Your task to perform on an android device: Open Wikipedia Image 0: 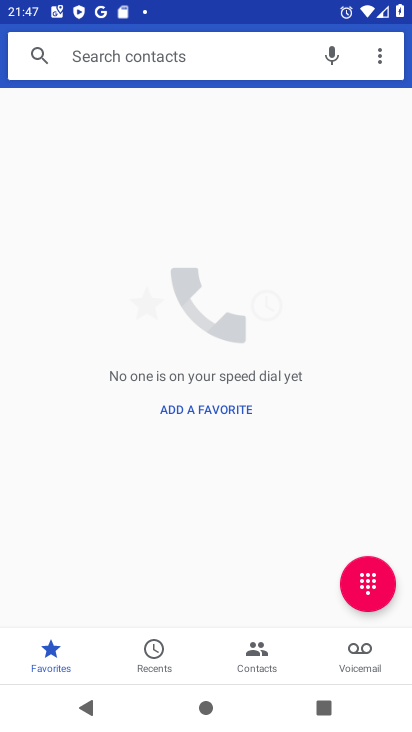
Step 0: press home button
Your task to perform on an android device: Open Wikipedia Image 1: 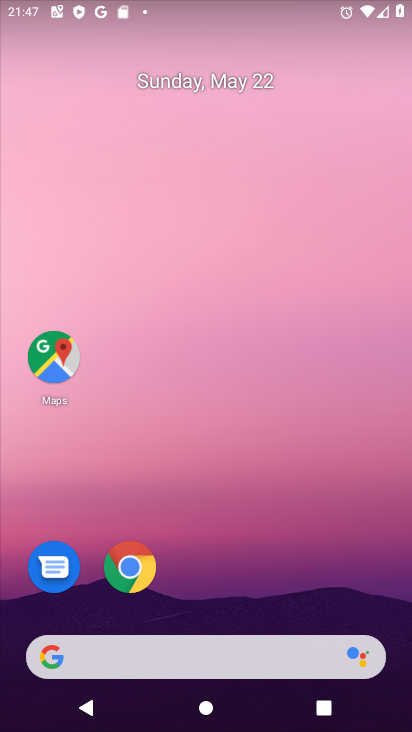
Step 1: click (126, 570)
Your task to perform on an android device: Open Wikipedia Image 2: 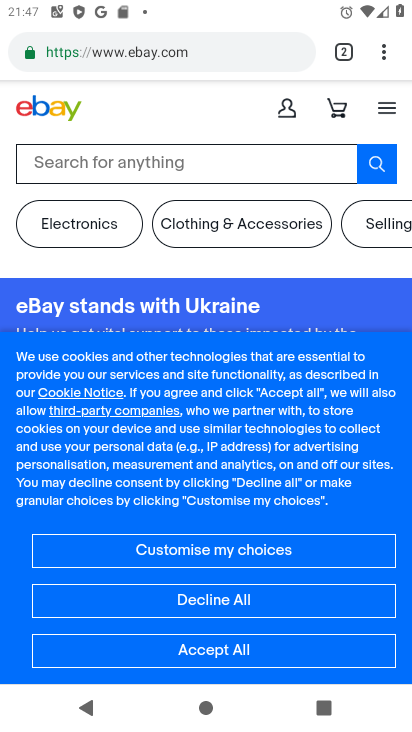
Step 2: click (208, 53)
Your task to perform on an android device: Open Wikipedia Image 3: 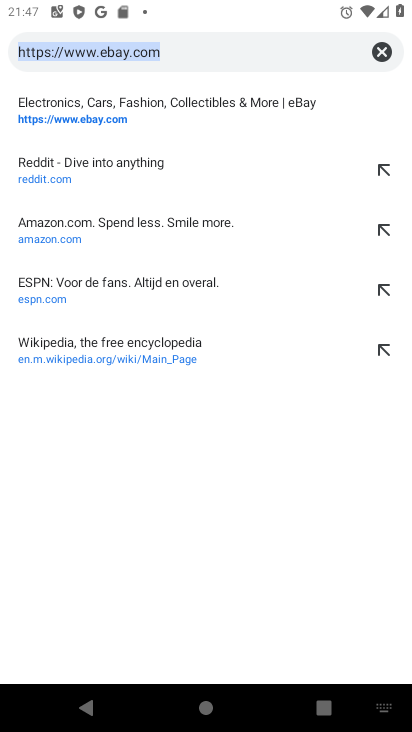
Step 3: type "wikipedia"
Your task to perform on an android device: Open Wikipedia Image 4: 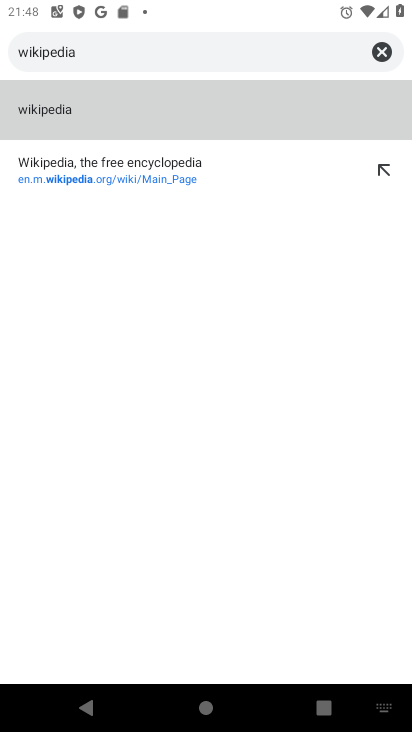
Step 4: click (193, 120)
Your task to perform on an android device: Open Wikipedia Image 5: 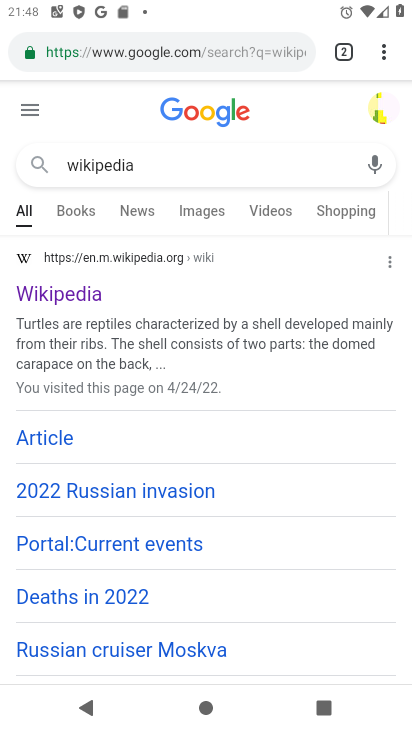
Step 5: task complete